Your task to perform on an android device: Go to eBay Image 0: 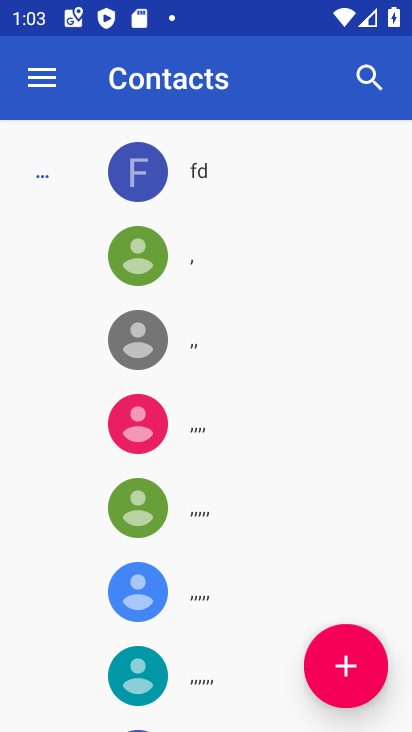
Step 0: press home button
Your task to perform on an android device: Go to eBay Image 1: 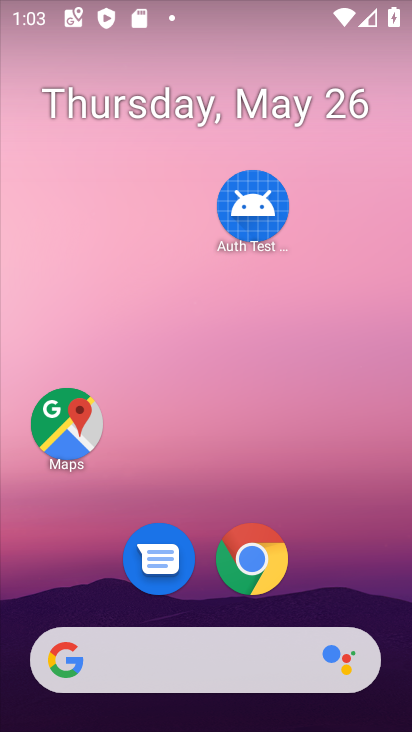
Step 1: click (262, 550)
Your task to perform on an android device: Go to eBay Image 2: 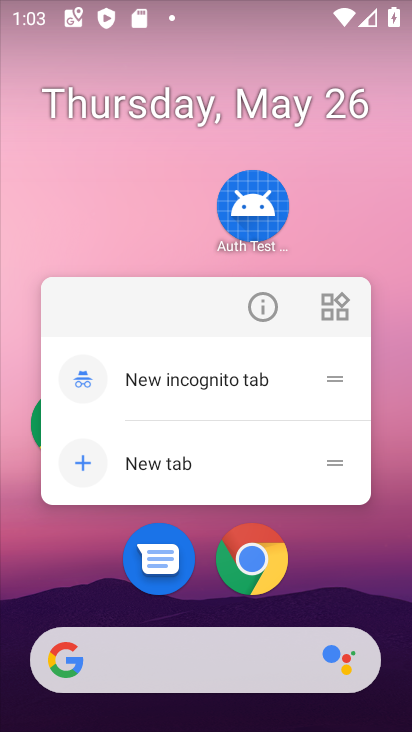
Step 2: click (259, 575)
Your task to perform on an android device: Go to eBay Image 3: 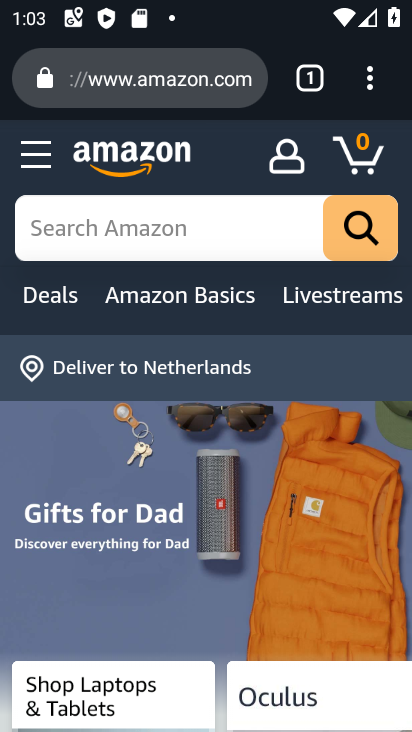
Step 3: click (212, 98)
Your task to perform on an android device: Go to eBay Image 4: 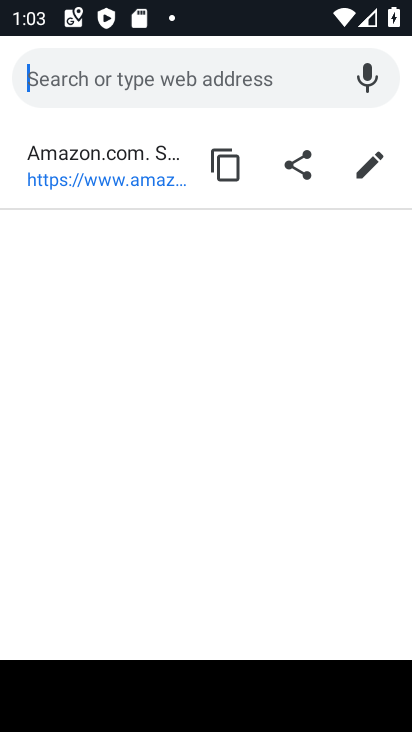
Step 4: type "ebay"
Your task to perform on an android device: Go to eBay Image 5: 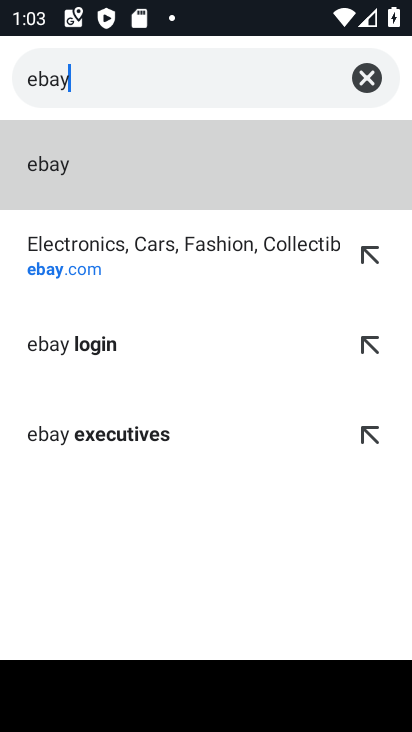
Step 5: click (184, 254)
Your task to perform on an android device: Go to eBay Image 6: 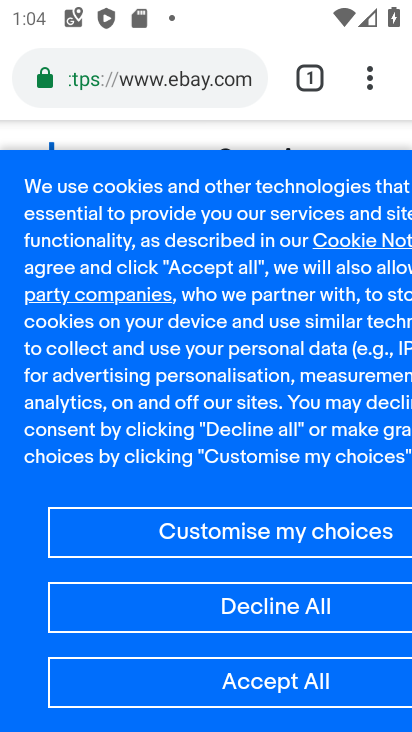
Step 6: task complete